Your task to perform on an android device: turn on showing notifications on the lock screen Image 0: 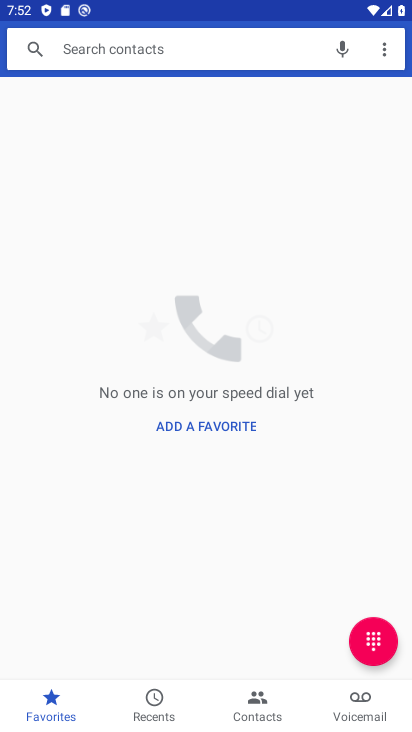
Step 0: press home button
Your task to perform on an android device: turn on showing notifications on the lock screen Image 1: 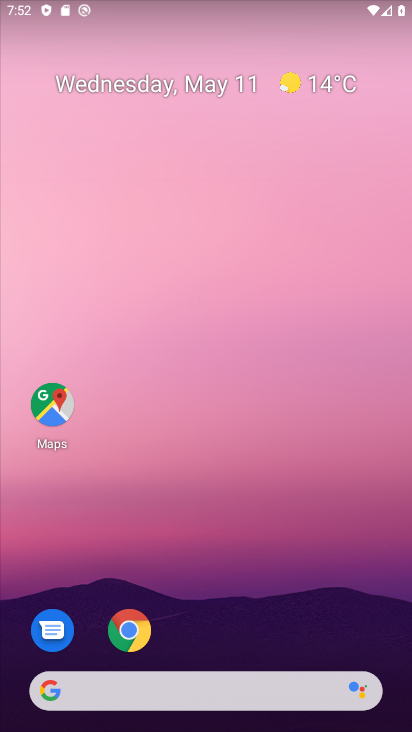
Step 1: drag from (216, 662) to (232, 18)
Your task to perform on an android device: turn on showing notifications on the lock screen Image 2: 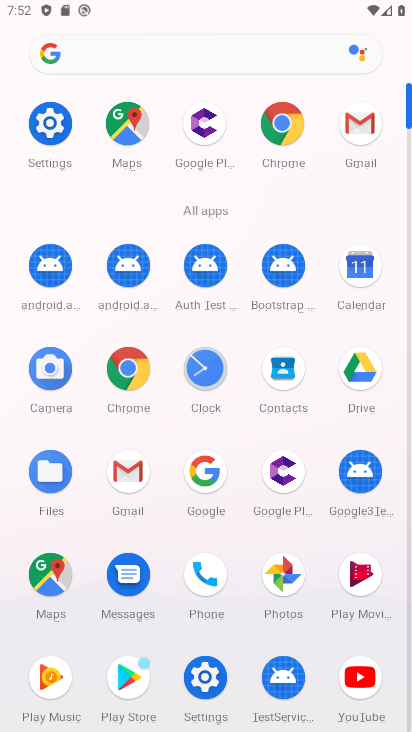
Step 2: click (43, 134)
Your task to perform on an android device: turn on showing notifications on the lock screen Image 3: 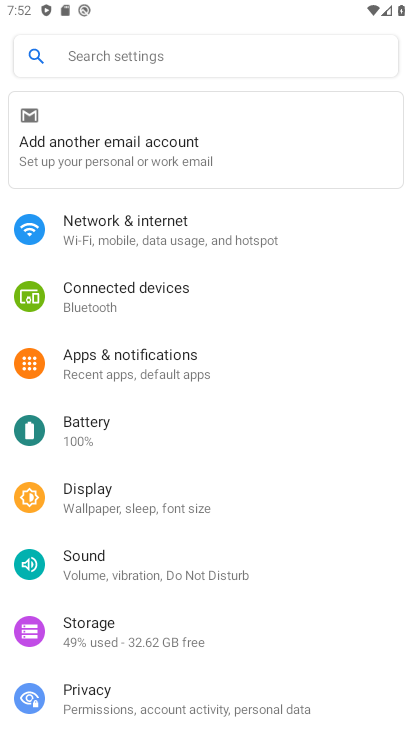
Step 3: click (132, 385)
Your task to perform on an android device: turn on showing notifications on the lock screen Image 4: 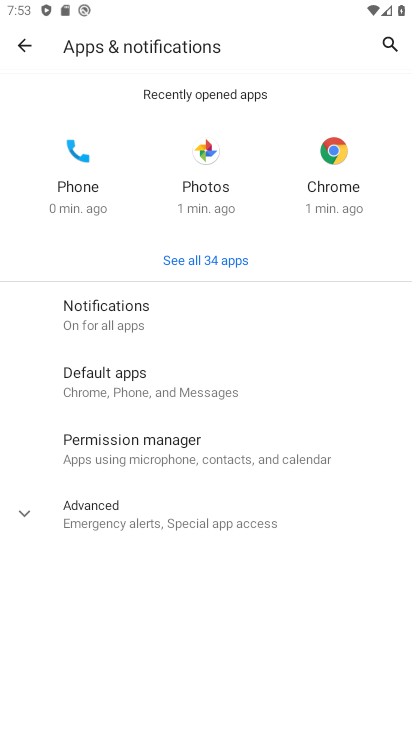
Step 4: click (88, 299)
Your task to perform on an android device: turn on showing notifications on the lock screen Image 5: 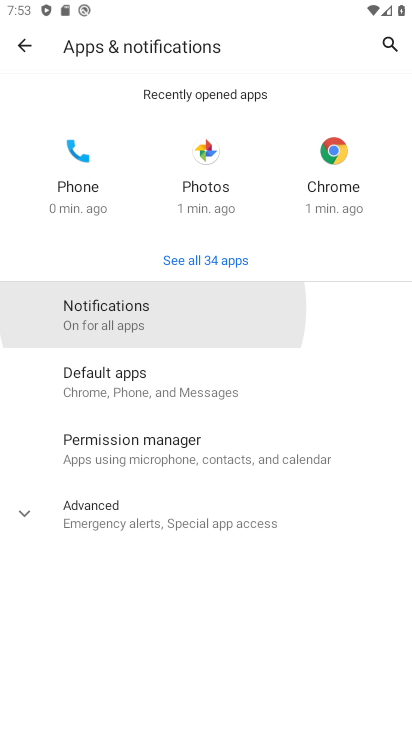
Step 5: click (88, 299)
Your task to perform on an android device: turn on showing notifications on the lock screen Image 6: 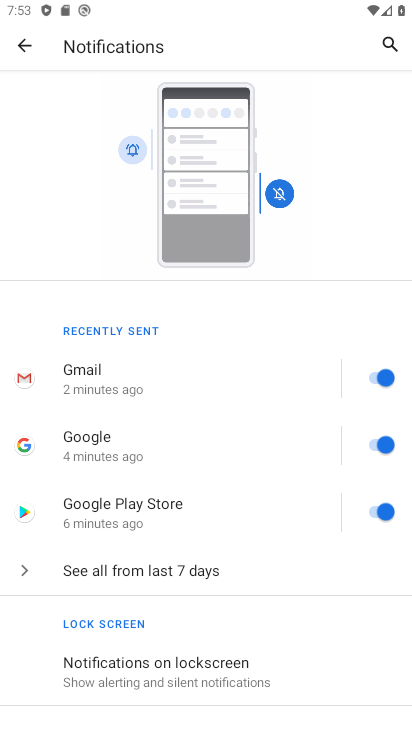
Step 6: click (87, 661)
Your task to perform on an android device: turn on showing notifications on the lock screen Image 7: 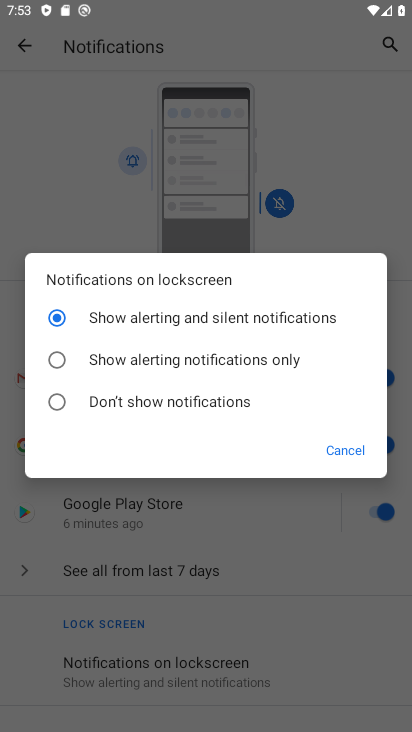
Step 7: click (103, 316)
Your task to perform on an android device: turn on showing notifications on the lock screen Image 8: 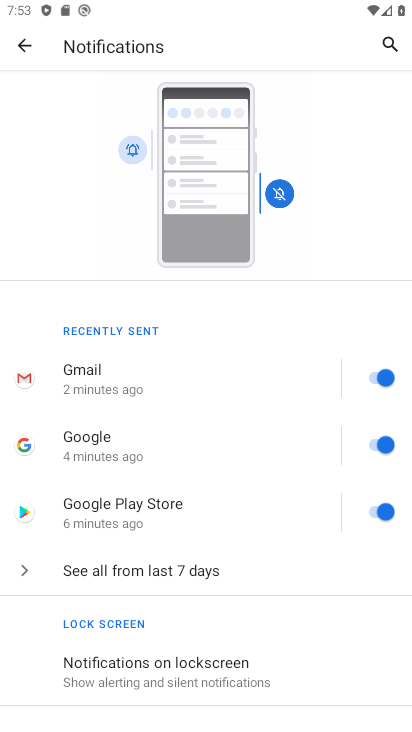
Step 8: task complete